Your task to perform on an android device: see sites visited before in the chrome app Image 0: 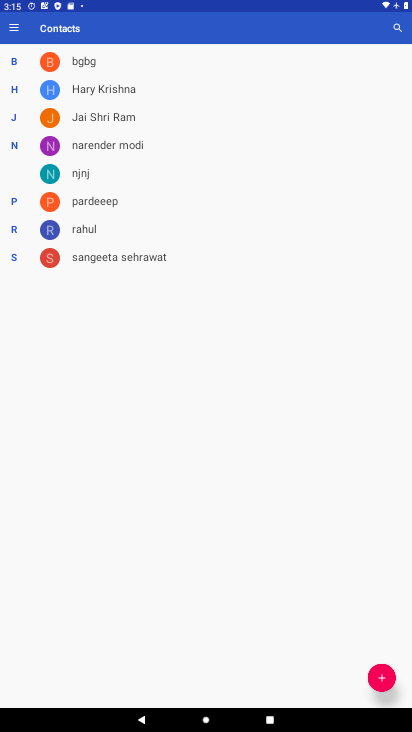
Step 0: press home button
Your task to perform on an android device: see sites visited before in the chrome app Image 1: 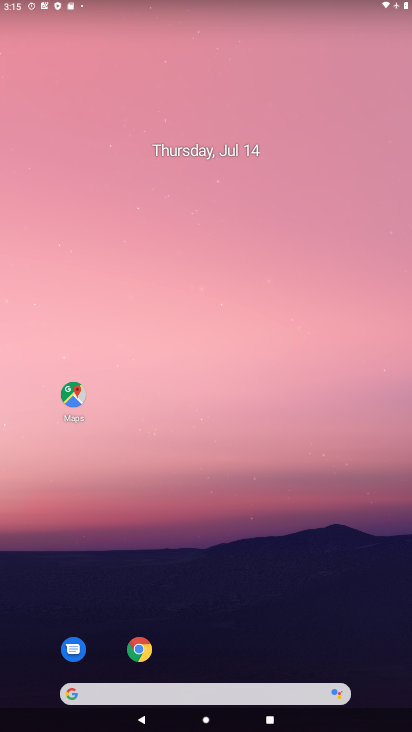
Step 1: drag from (243, 626) to (249, 14)
Your task to perform on an android device: see sites visited before in the chrome app Image 2: 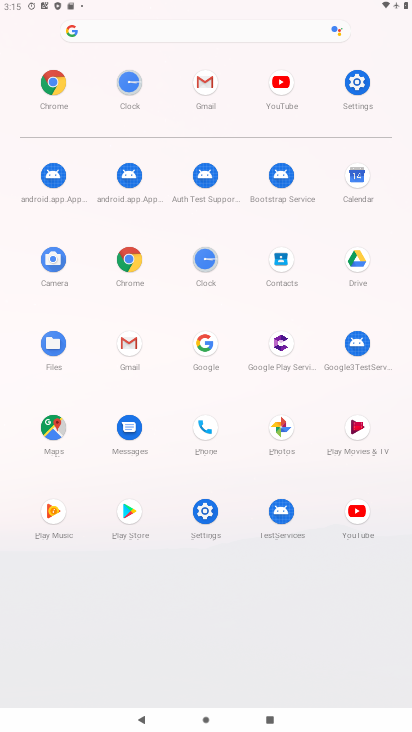
Step 2: click (127, 262)
Your task to perform on an android device: see sites visited before in the chrome app Image 3: 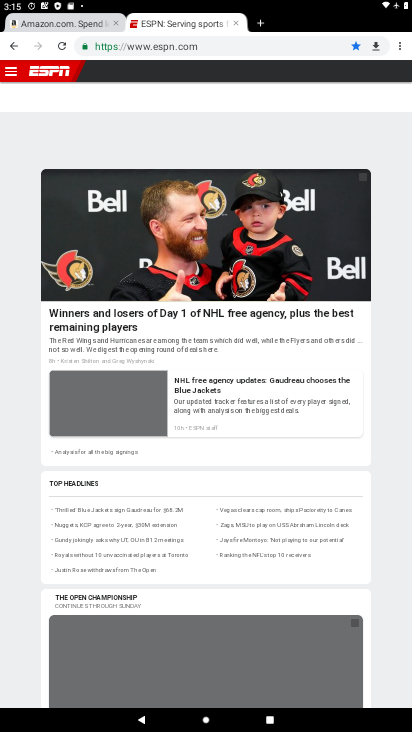
Step 3: click (398, 47)
Your task to perform on an android device: see sites visited before in the chrome app Image 4: 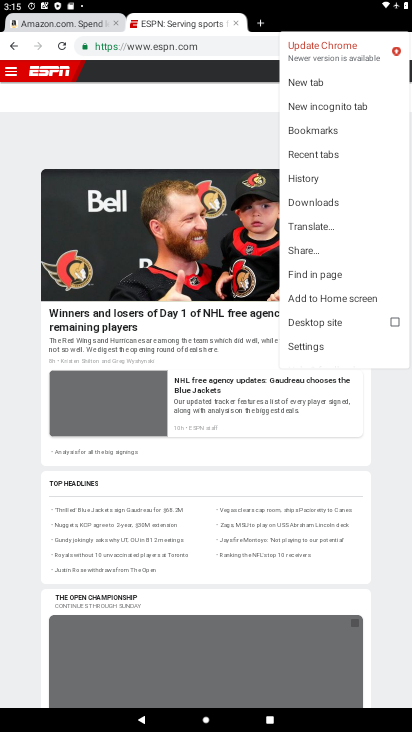
Step 4: click (306, 176)
Your task to perform on an android device: see sites visited before in the chrome app Image 5: 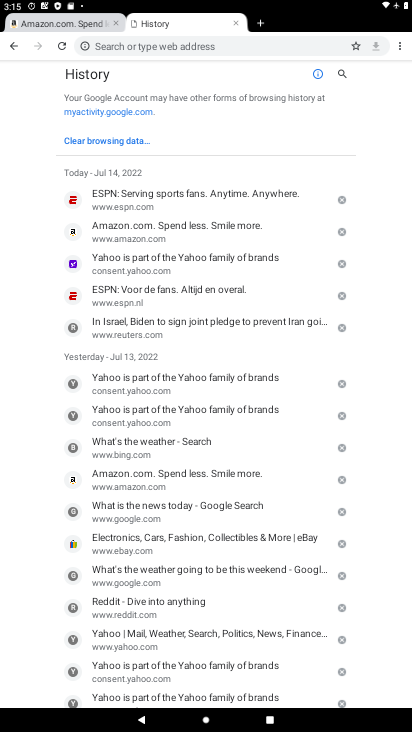
Step 5: task complete